Your task to perform on an android device: change the clock style Image 0: 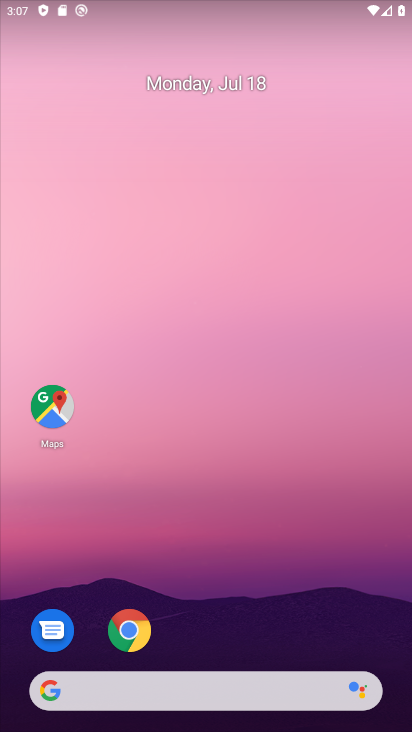
Step 0: drag from (240, 687) to (285, 158)
Your task to perform on an android device: change the clock style Image 1: 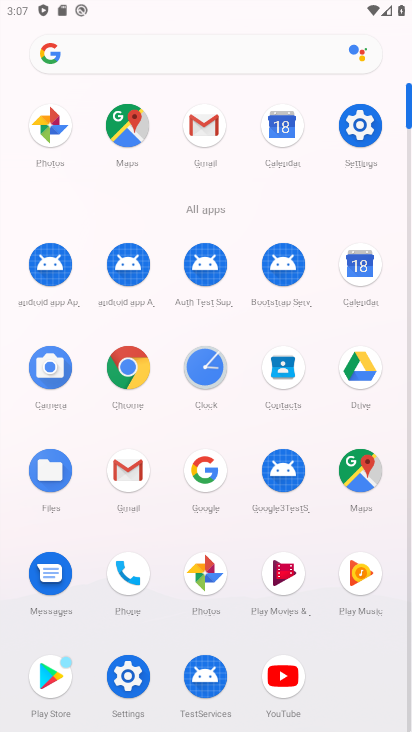
Step 1: click (202, 376)
Your task to perform on an android device: change the clock style Image 2: 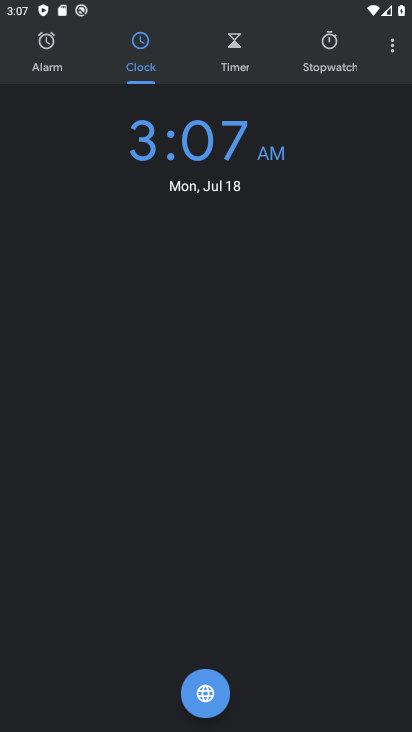
Step 2: click (397, 48)
Your task to perform on an android device: change the clock style Image 3: 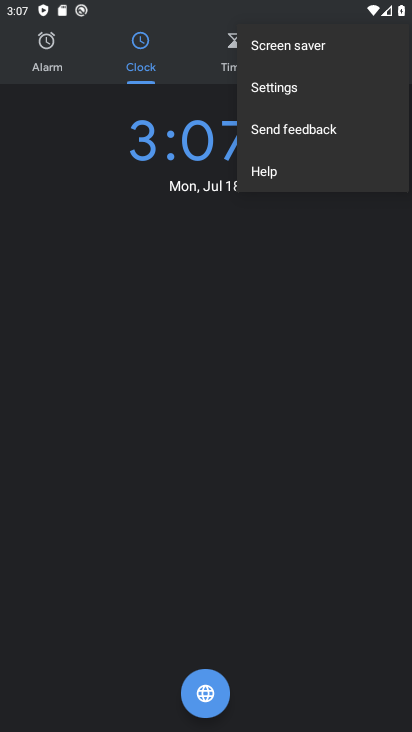
Step 3: click (339, 96)
Your task to perform on an android device: change the clock style Image 4: 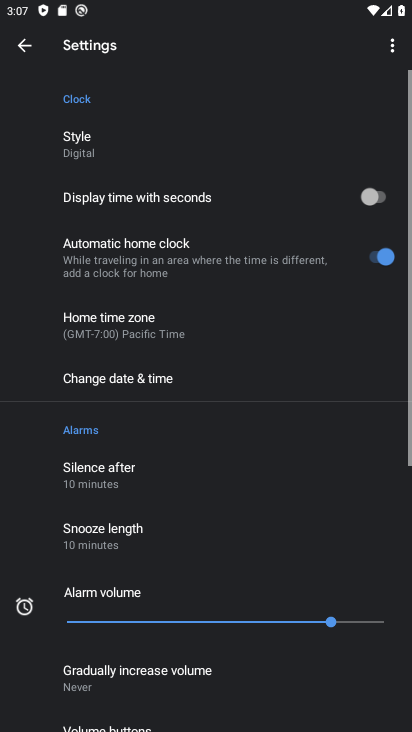
Step 4: click (276, 133)
Your task to perform on an android device: change the clock style Image 5: 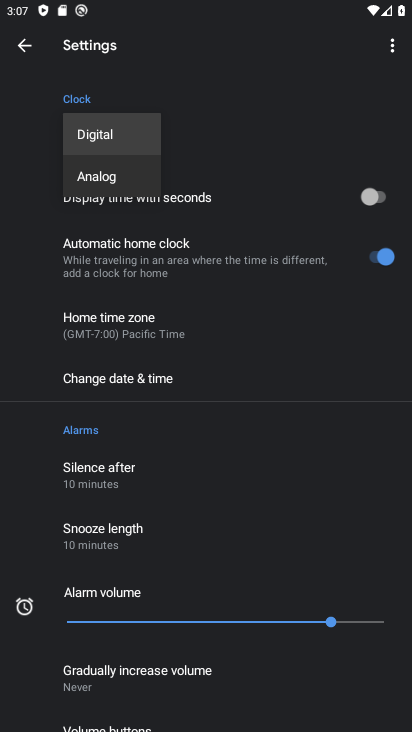
Step 5: click (106, 174)
Your task to perform on an android device: change the clock style Image 6: 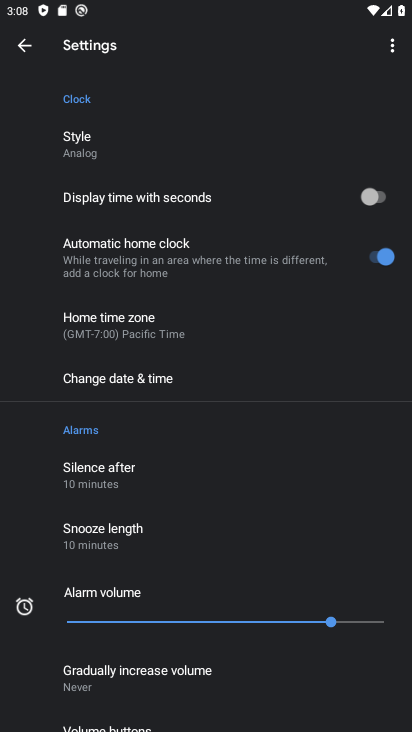
Step 6: task complete